Your task to perform on an android device: delete a single message in the gmail app Image 0: 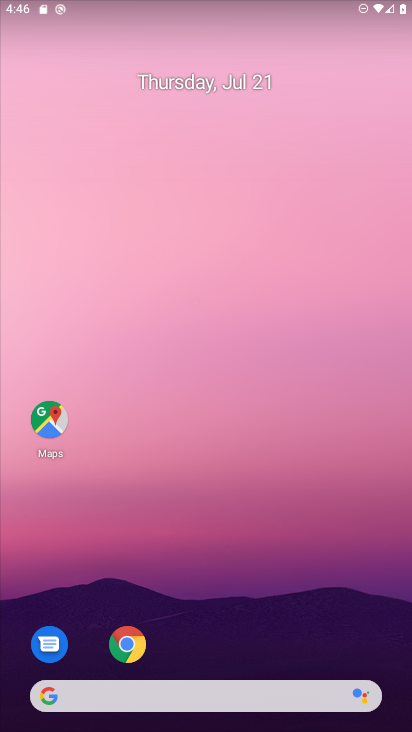
Step 0: drag from (201, 598) to (220, 10)
Your task to perform on an android device: delete a single message in the gmail app Image 1: 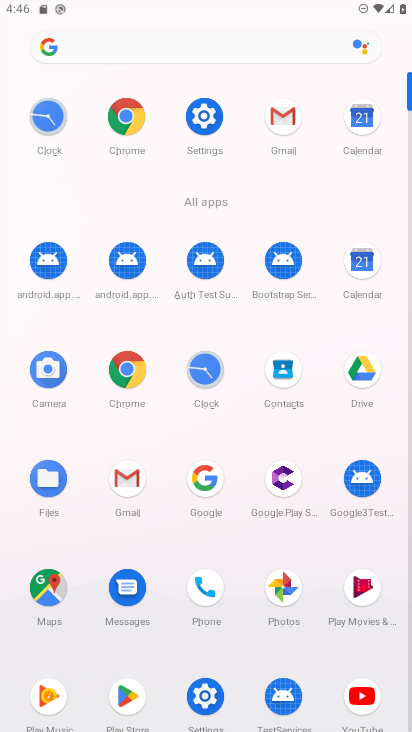
Step 1: click (291, 124)
Your task to perform on an android device: delete a single message in the gmail app Image 2: 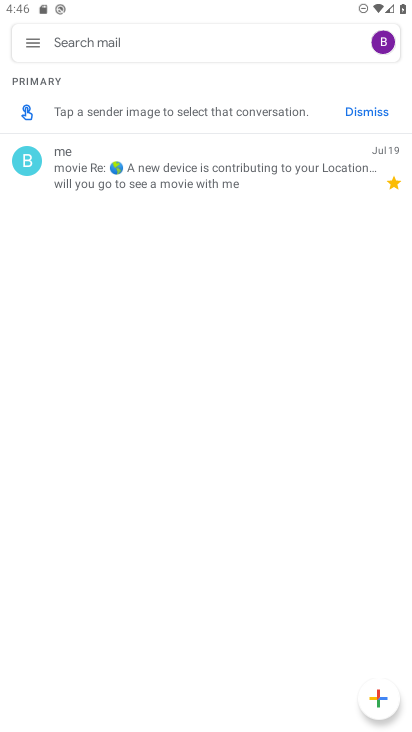
Step 2: click (129, 170)
Your task to perform on an android device: delete a single message in the gmail app Image 3: 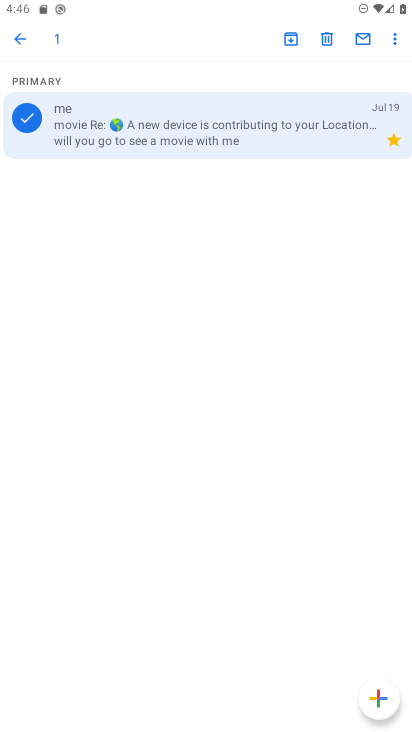
Step 3: click (328, 46)
Your task to perform on an android device: delete a single message in the gmail app Image 4: 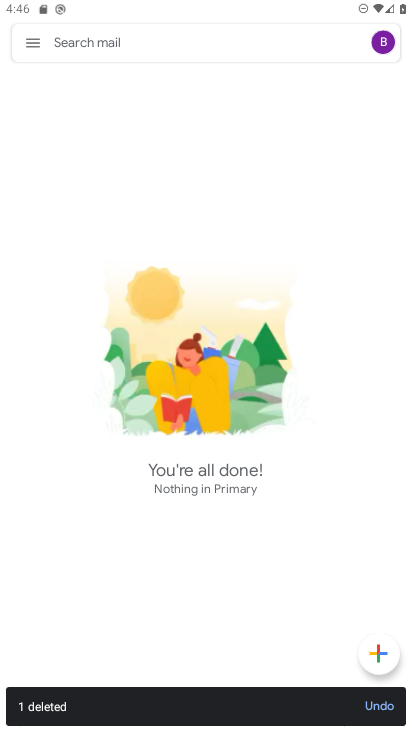
Step 4: task complete